Your task to perform on an android device: clear all cookies in the chrome app Image 0: 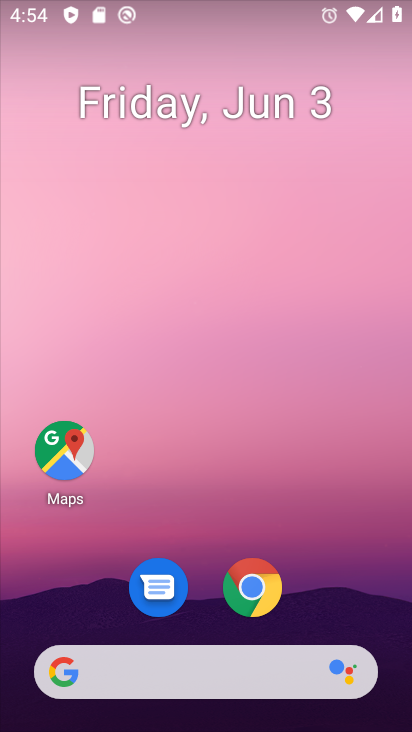
Step 0: click (253, 595)
Your task to perform on an android device: clear all cookies in the chrome app Image 1: 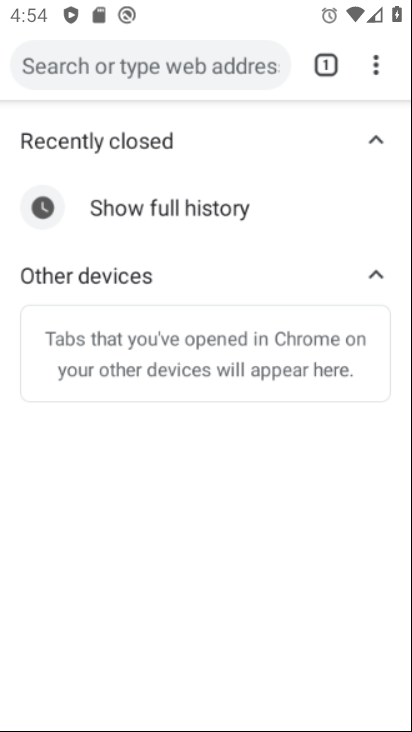
Step 1: click (383, 75)
Your task to perform on an android device: clear all cookies in the chrome app Image 2: 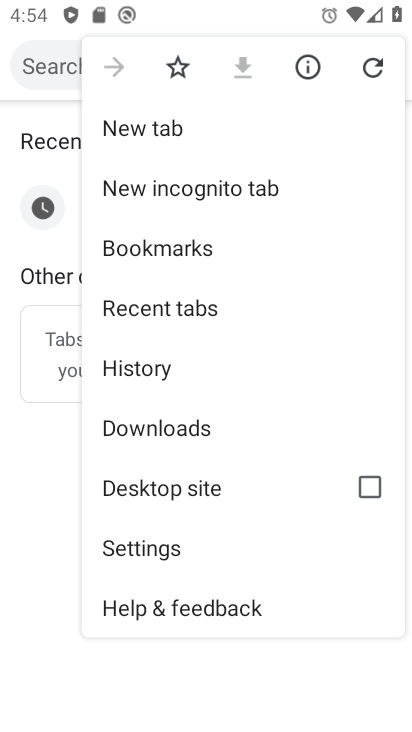
Step 2: click (159, 550)
Your task to perform on an android device: clear all cookies in the chrome app Image 3: 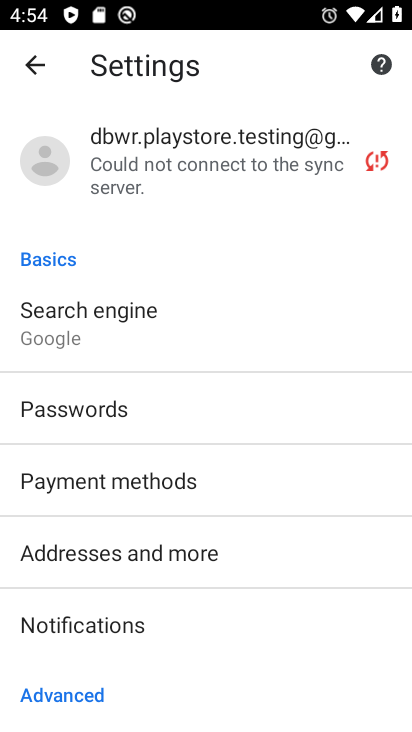
Step 3: drag from (213, 639) to (245, 178)
Your task to perform on an android device: clear all cookies in the chrome app Image 4: 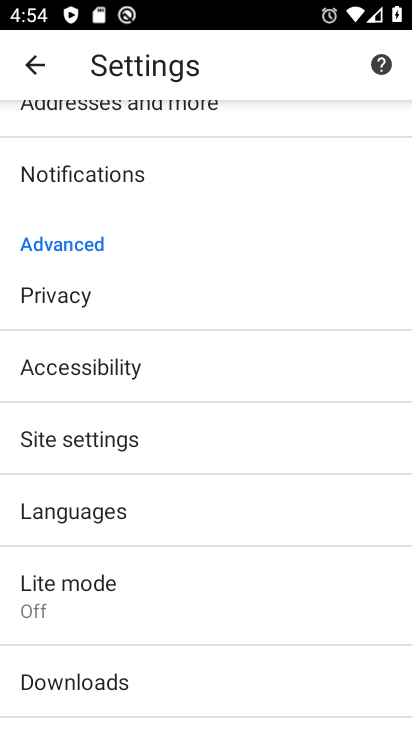
Step 4: click (56, 294)
Your task to perform on an android device: clear all cookies in the chrome app Image 5: 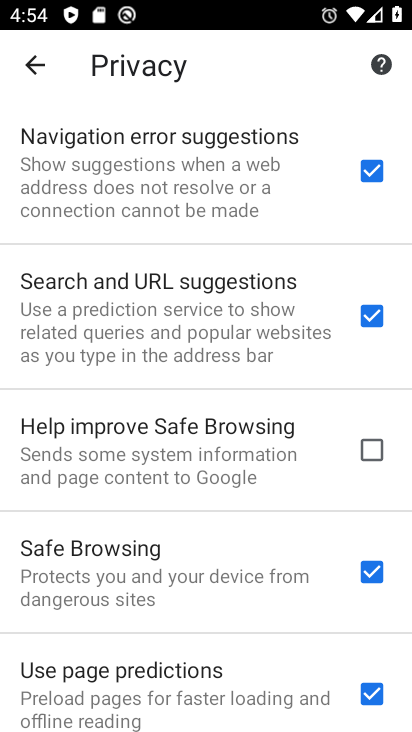
Step 5: drag from (267, 657) to (268, 136)
Your task to perform on an android device: clear all cookies in the chrome app Image 6: 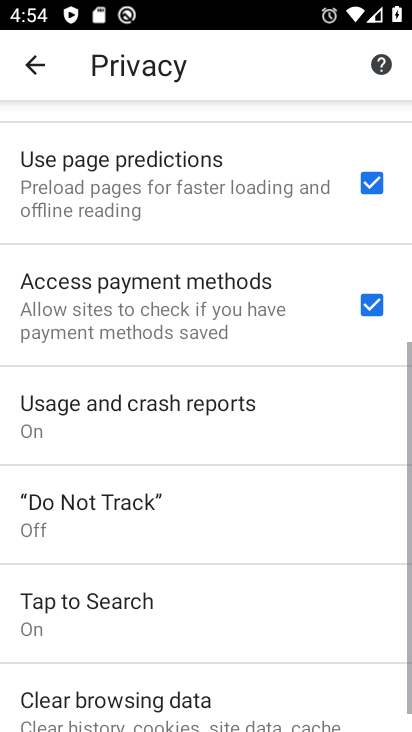
Step 6: click (151, 706)
Your task to perform on an android device: clear all cookies in the chrome app Image 7: 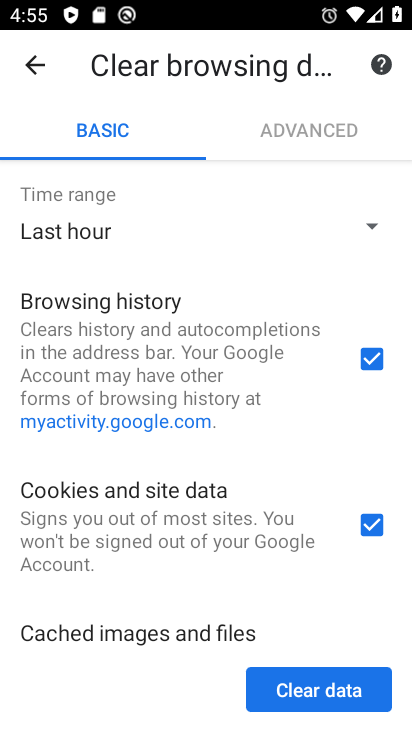
Step 7: click (358, 528)
Your task to perform on an android device: clear all cookies in the chrome app Image 8: 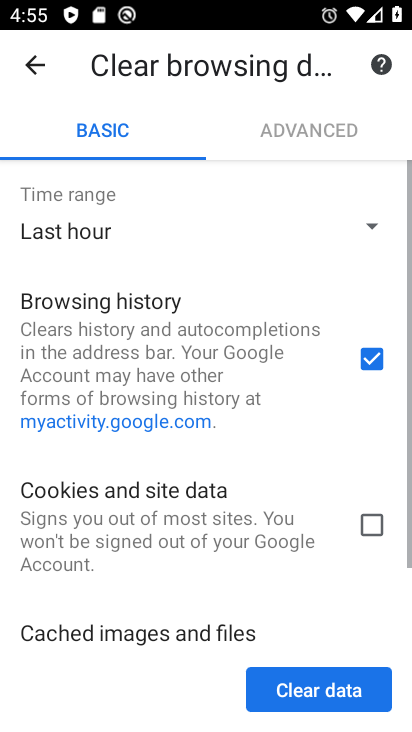
Step 8: click (365, 358)
Your task to perform on an android device: clear all cookies in the chrome app Image 9: 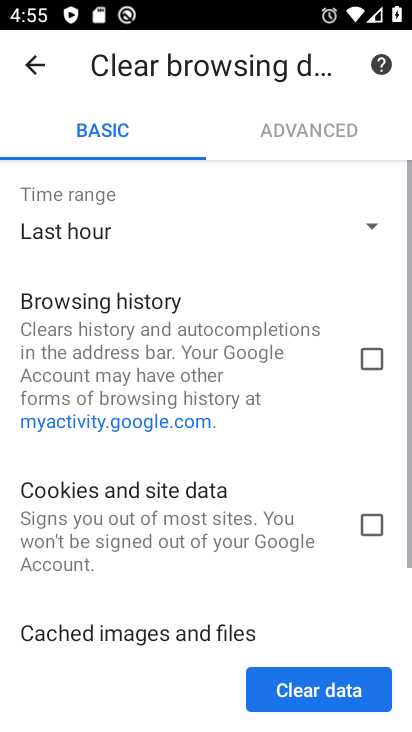
Step 9: click (362, 223)
Your task to perform on an android device: clear all cookies in the chrome app Image 10: 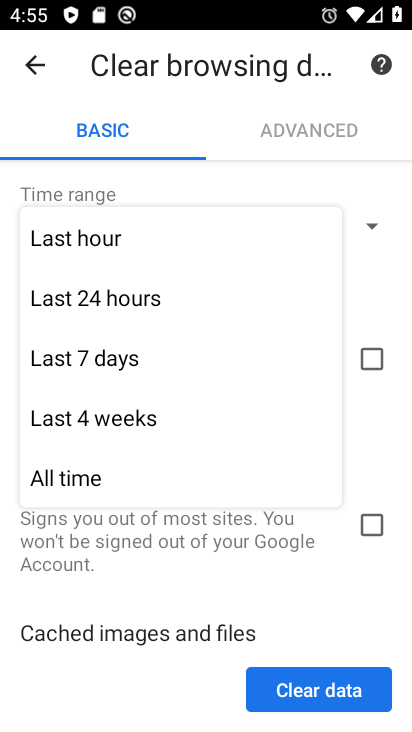
Step 10: click (73, 482)
Your task to perform on an android device: clear all cookies in the chrome app Image 11: 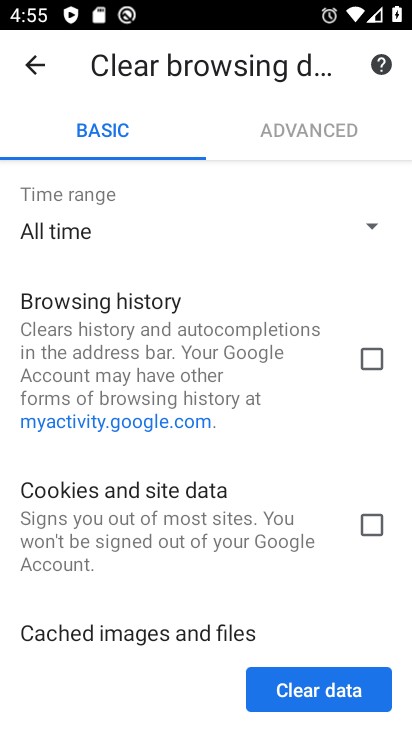
Step 11: click (369, 530)
Your task to perform on an android device: clear all cookies in the chrome app Image 12: 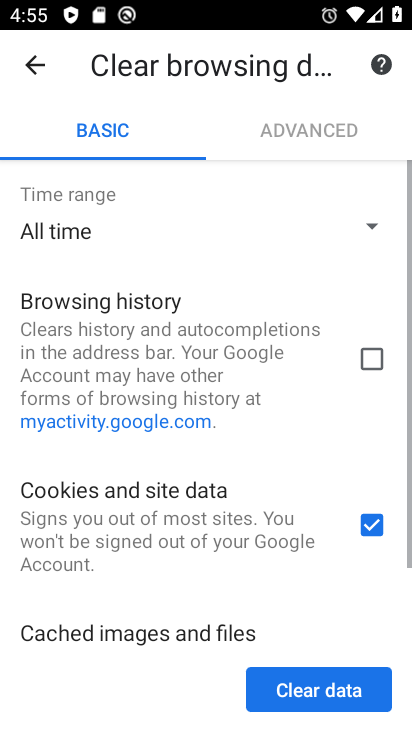
Step 12: drag from (252, 577) to (260, 156)
Your task to perform on an android device: clear all cookies in the chrome app Image 13: 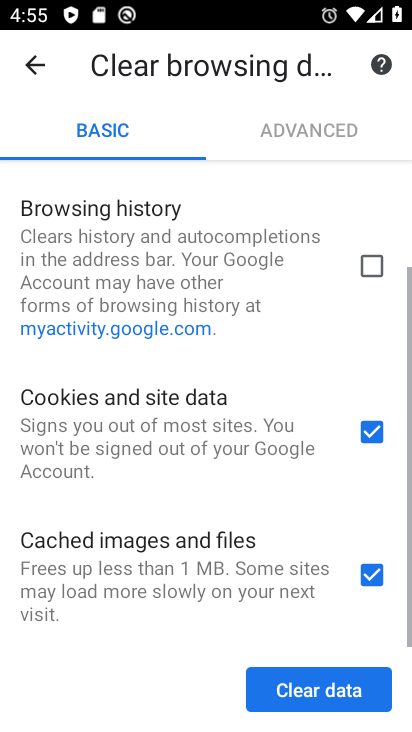
Step 13: click (378, 584)
Your task to perform on an android device: clear all cookies in the chrome app Image 14: 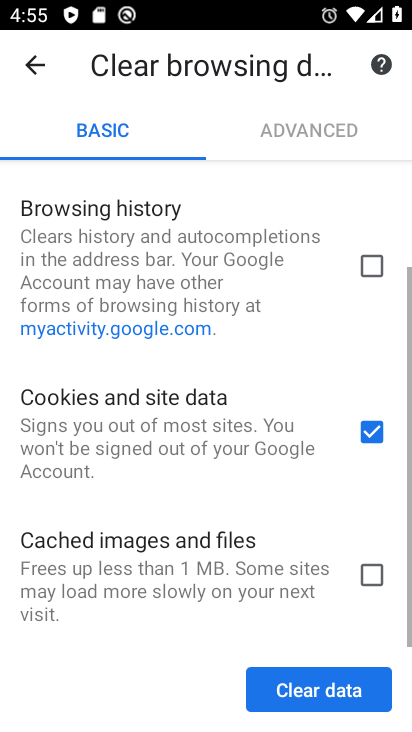
Step 14: click (345, 693)
Your task to perform on an android device: clear all cookies in the chrome app Image 15: 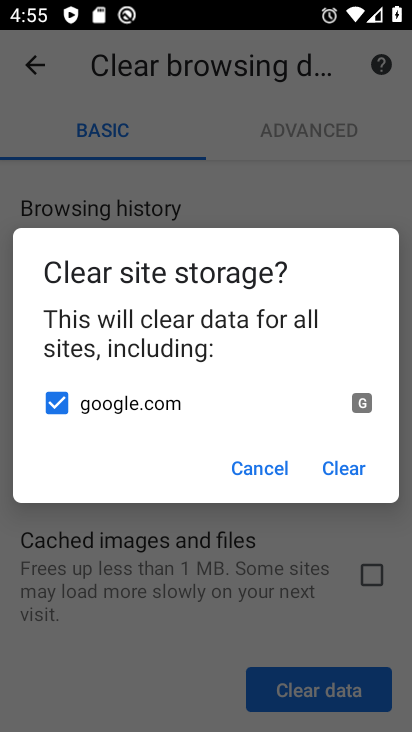
Step 15: click (350, 468)
Your task to perform on an android device: clear all cookies in the chrome app Image 16: 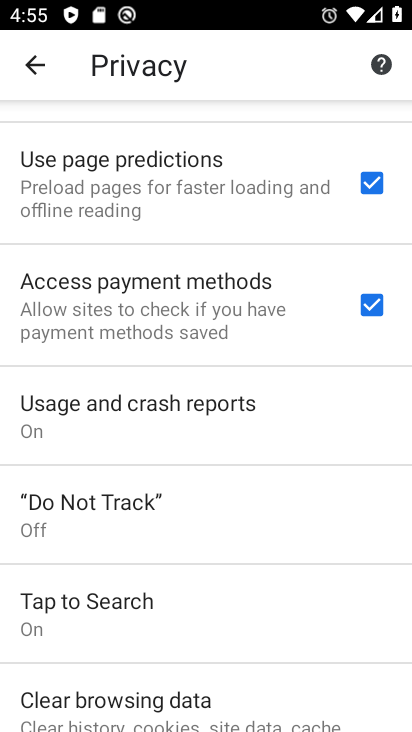
Step 16: task complete